Your task to perform on an android device: turn pop-ups off in chrome Image 0: 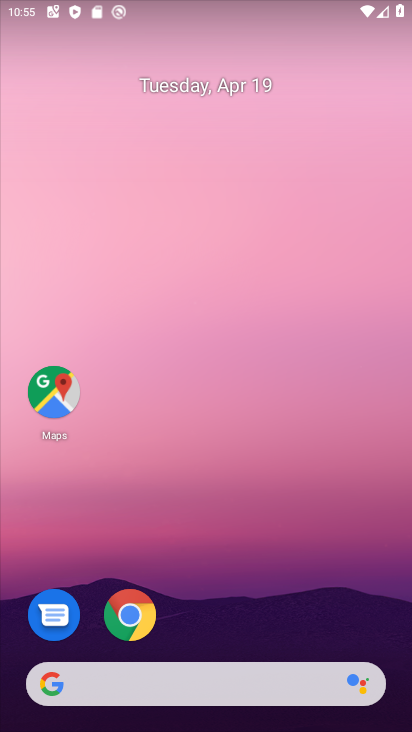
Step 0: drag from (204, 200) to (202, 144)
Your task to perform on an android device: turn pop-ups off in chrome Image 1: 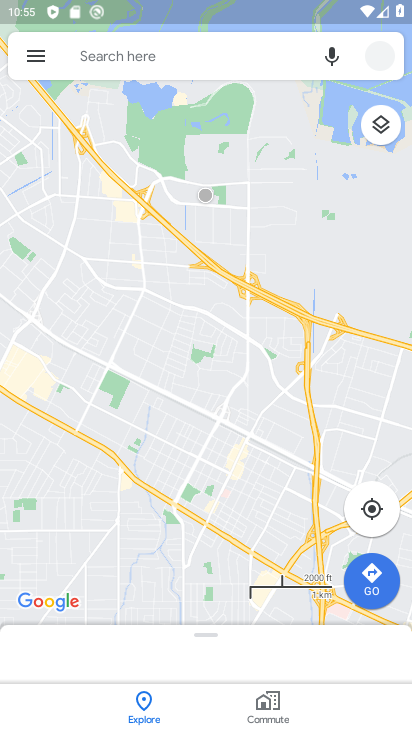
Step 1: press home button
Your task to perform on an android device: turn pop-ups off in chrome Image 2: 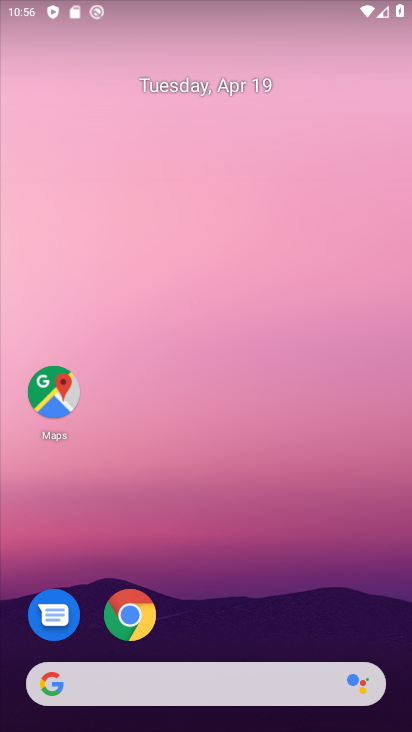
Step 2: click (124, 616)
Your task to perform on an android device: turn pop-ups off in chrome Image 3: 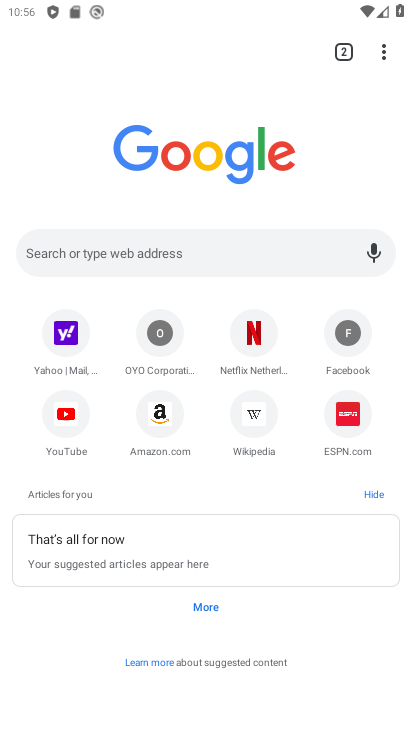
Step 3: click (379, 49)
Your task to perform on an android device: turn pop-ups off in chrome Image 4: 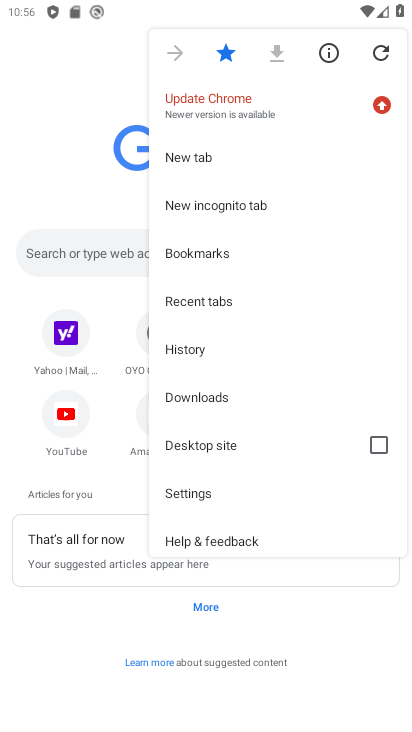
Step 4: click (223, 495)
Your task to perform on an android device: turn pop-ups off in chrome Image 5: 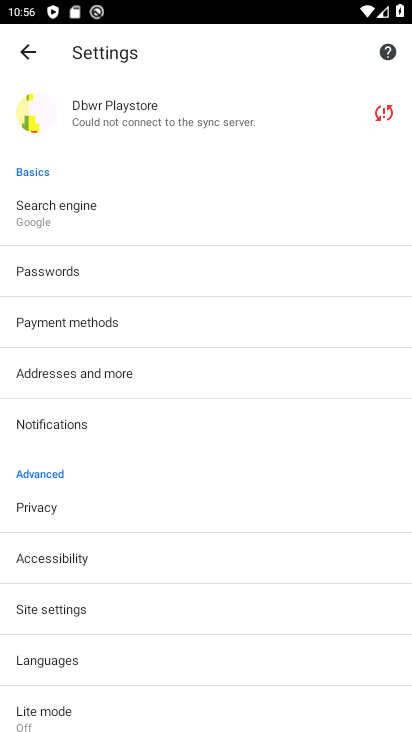
Step 5: click (63, 604)
Your task to perform on an android device: turn pop-ups off in chrome Image 6: 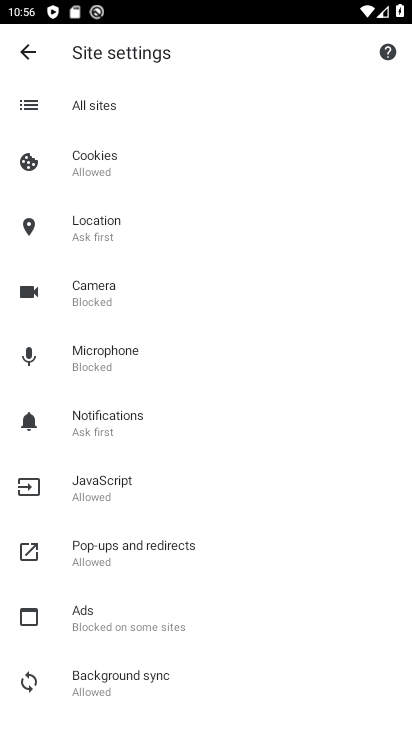
Step 6: click (138, 549)
Your task to perform on an android device: turn pop-ups off in chrome Image 7: 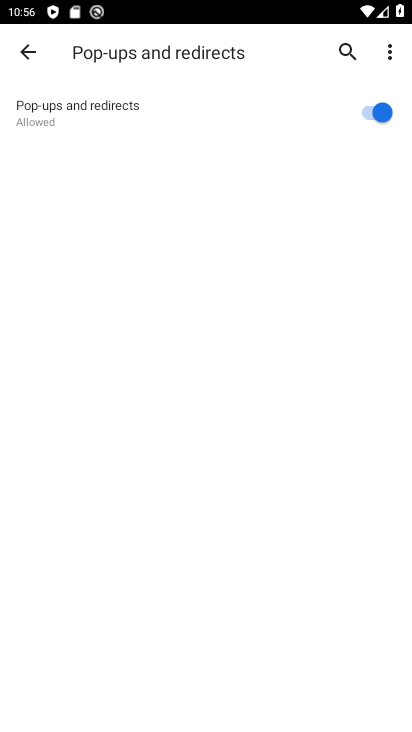
Step 7: click (375, 111)
Your task to perform on an android device: turn pop-ups off in chrome Image 8: 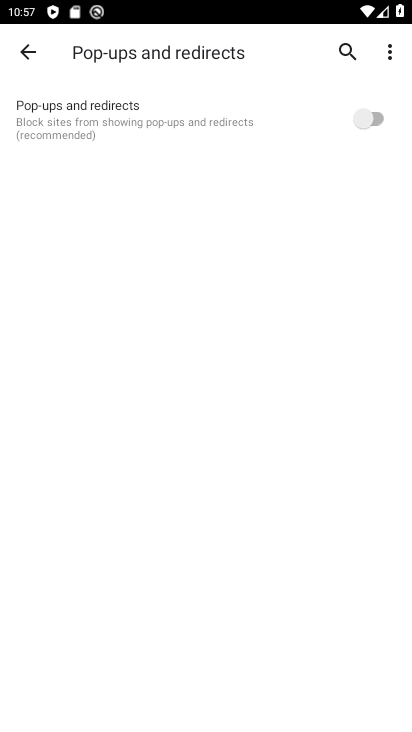
Step 8: task complete